Your task to perform on an android device: turn on location history Image 0: 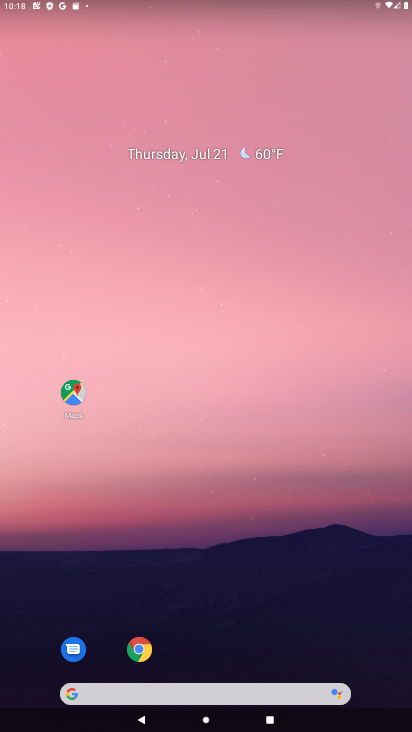
Step 0: drag from (186, 691) to (289, 238)
Your task to perform on an android device: turn on location history Image 1: 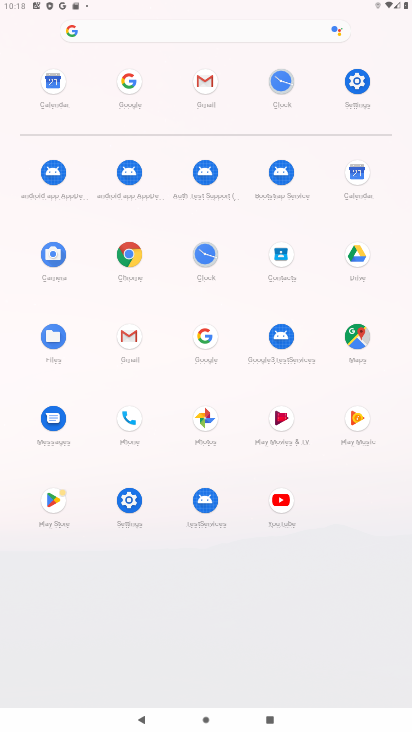
Step 1: click (359, 82)
Your task to perform on an android device: turn on location history Image 2: 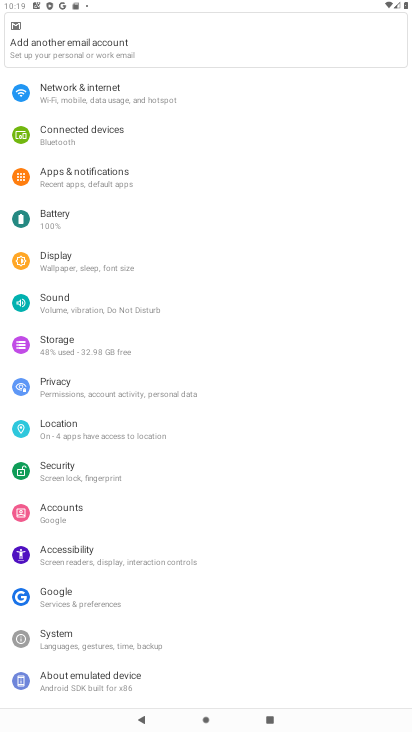
Step 2: click (74, 426)
Your task to perform on an android device: turn on location history Image 3: 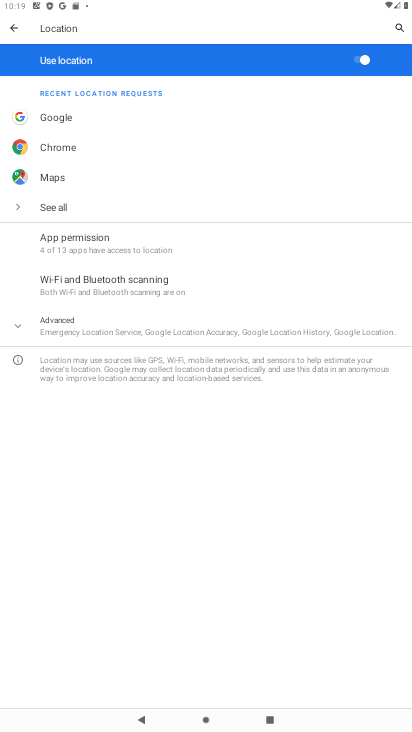
Step 3: click (121, 330)
Your task to perform on an android device: turn on location history Image 4: 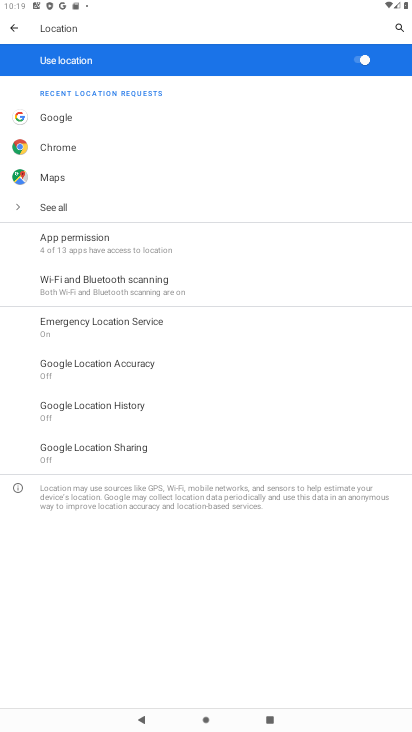
Step 4: click (139, 403)
Your task to perform on an android device: turn on location history Image 5: 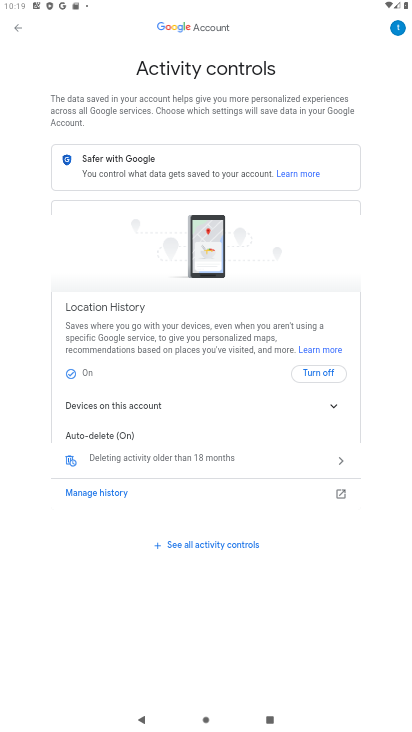
Step 5: task complete